Your task to perform on an android device: open a bookmark in the chrome app Image 0: 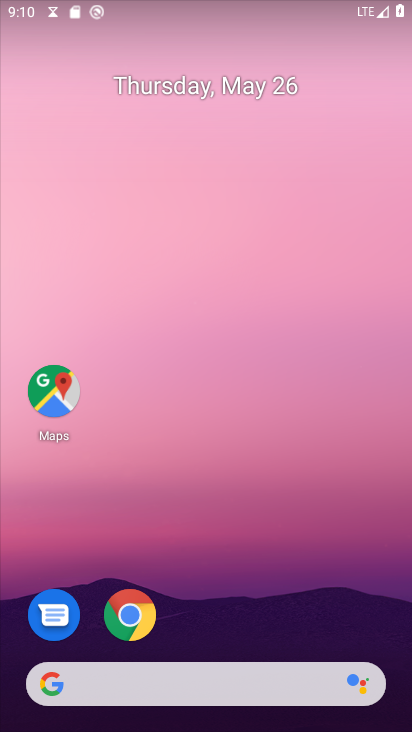
Step 0: click (127, 612)
Your task to perform on an android device: open a bookmark in the chrome app Image 1: 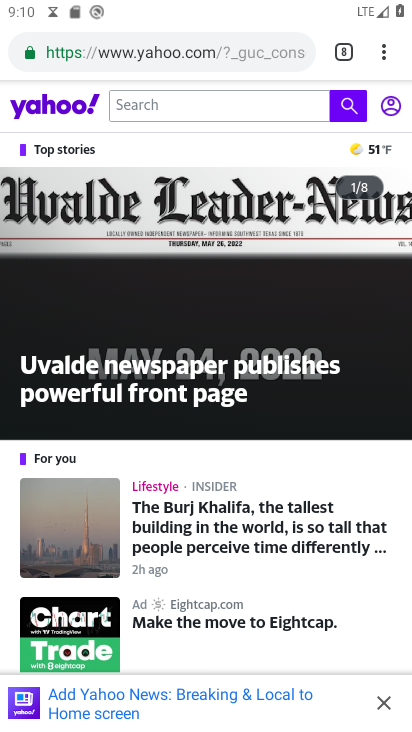
Step 1: click (391, 47)
Your task to perform on an android device: open a bookmark in the chrome app Image 2: 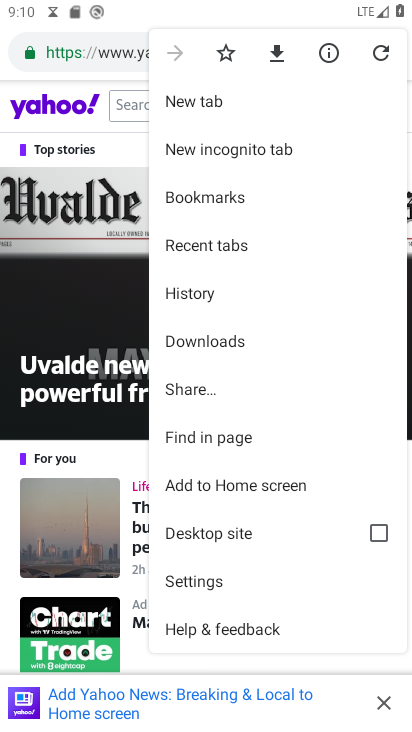
Step 2: click (228, 200)
Your task to perform on an android device: open a bookmark in the chrome app Image 3: 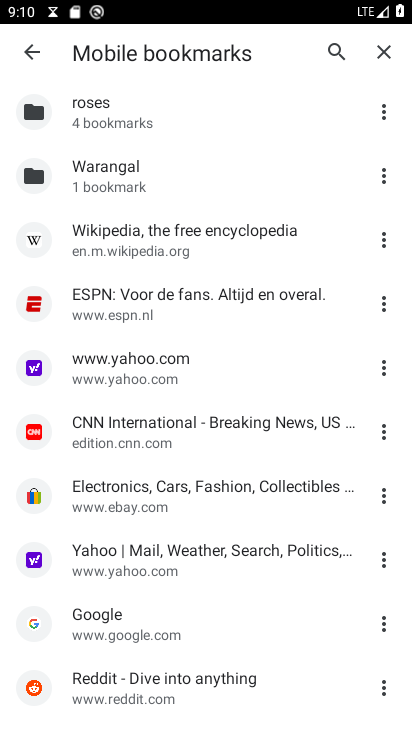
Step 3: task complete